Your task to perform on an android device: turn off airplane mode Image 0: 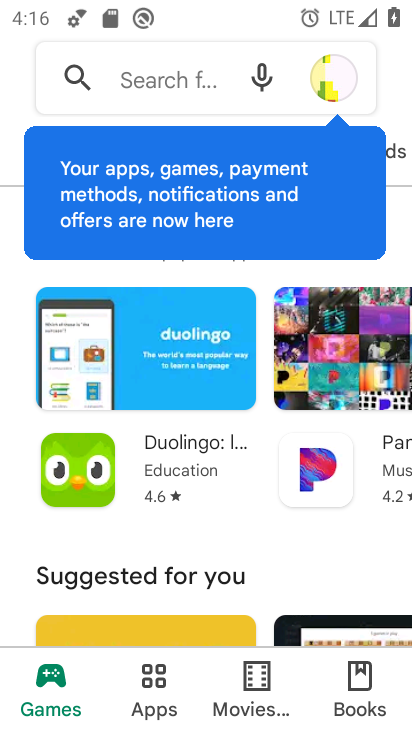
Step 0: press home button
Your task to perform on an android device: turn off airplane mode Image 1: 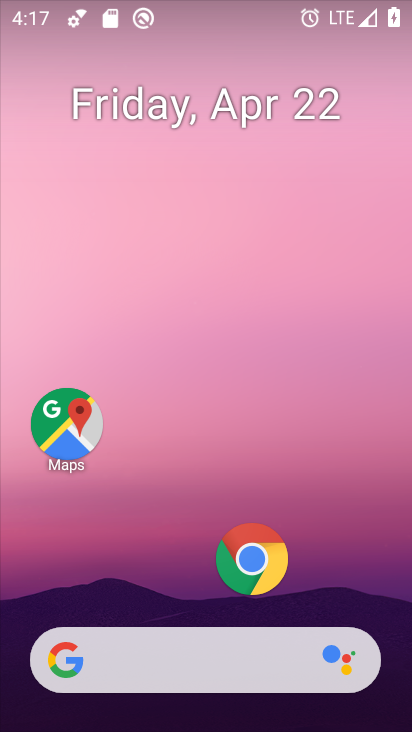
Step 1: drag from (170, 507) to (213, 109)
Your task to perform on an android device: turn off airplane mode Image 2: 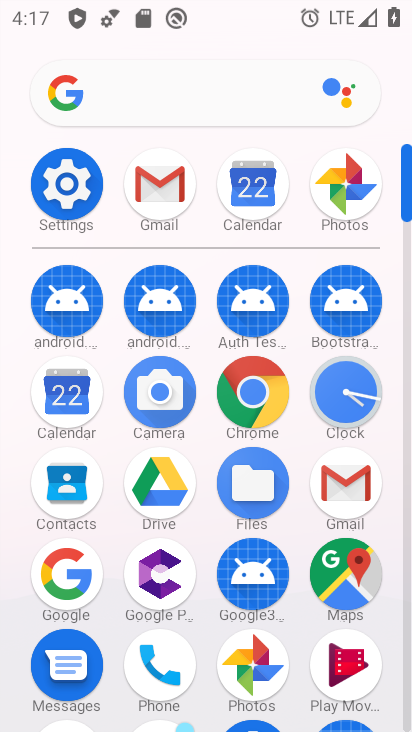
Step 2: click (63, 190)
Your task to perform on an android device: turn off airplane mode Image 3: 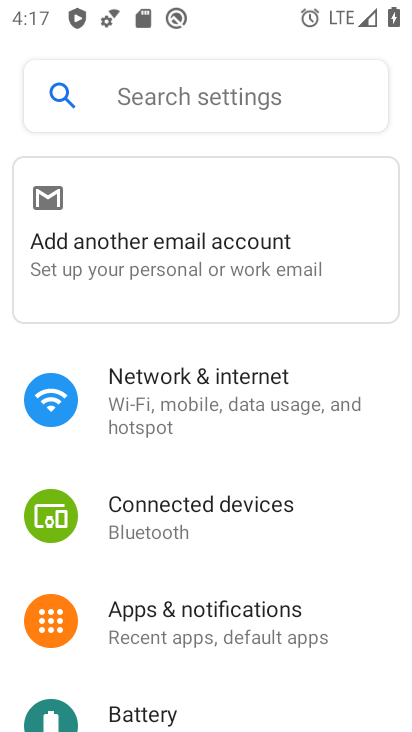
Step 3: click (172, 413)
Your task to perform on an android device: turn off airplane mode Image 4: 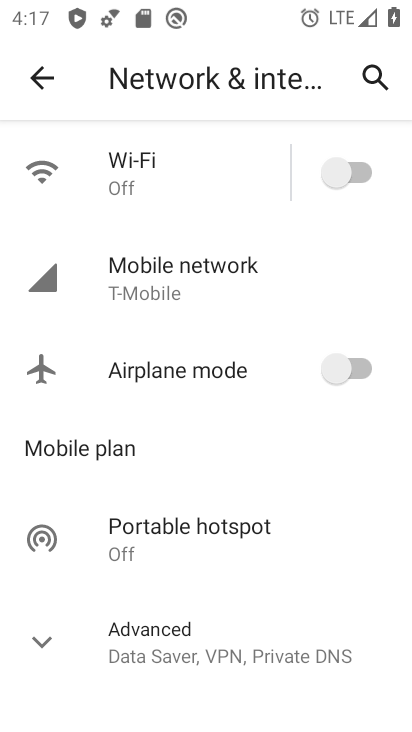
Step 4: task complete